Your task to perform on an android device: toggle show notifications on the lock screen Image 0: 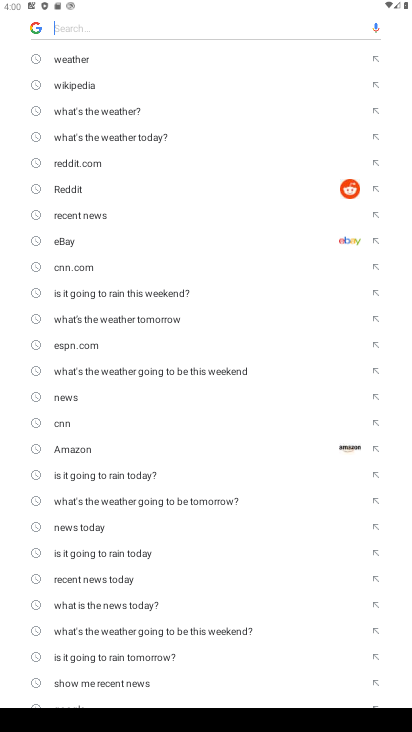
Step 0: press home button
Your task to perform on an android device: toggle show notifications on the lock screen Image 1: 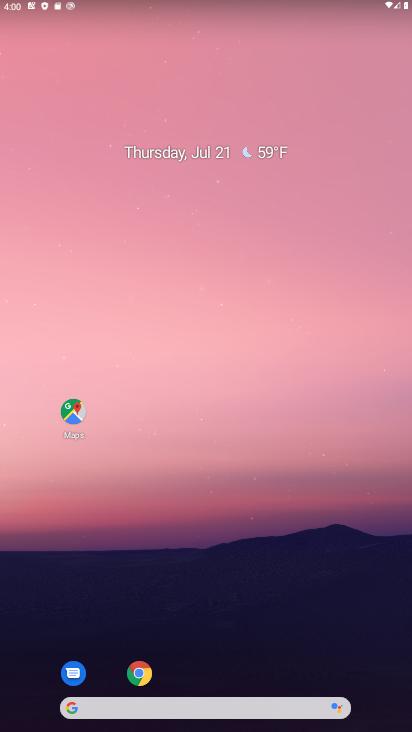
Step 1: drag from (392, 675) to (349, 134)
Your task to perform on an android device: toggle show notifications on the lock screen Image 2: 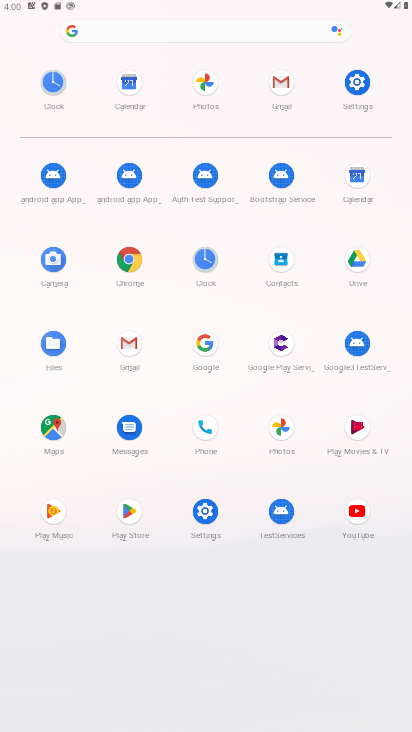
Step 2: click (205, 511)
Your task to perform on an android device: toggle show notifications on the lock screen Image 3: 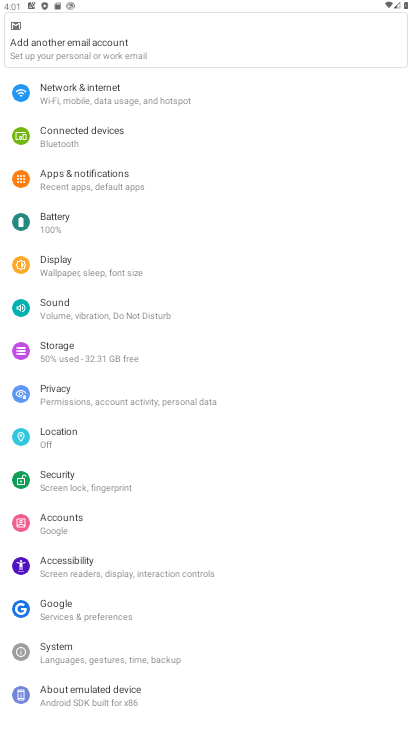
Step 3: click (79, 177)
Your task to perform on an android device: toggle show notifications on the lock screen Image 4: 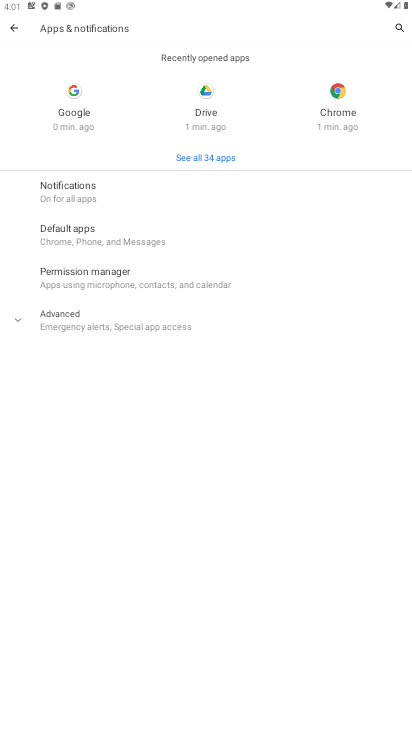
Step 4: click (84, 190)
Your task to perform on an android device: toggle show notifications on the lock screen Image 5: 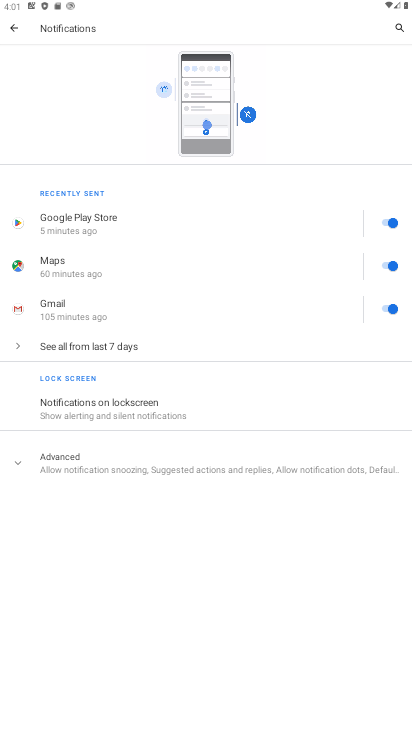
Step 5: click (17, 462)
Your task to perform on an android device: toggle show notifications on the lock screen Image 6: 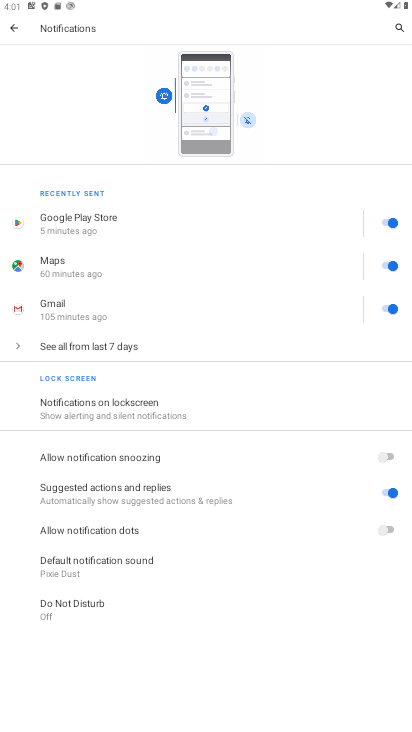
Step 6: click (112, 403)
Your task to perform on an android device: toggle show notifications on the lock screen Image 7: 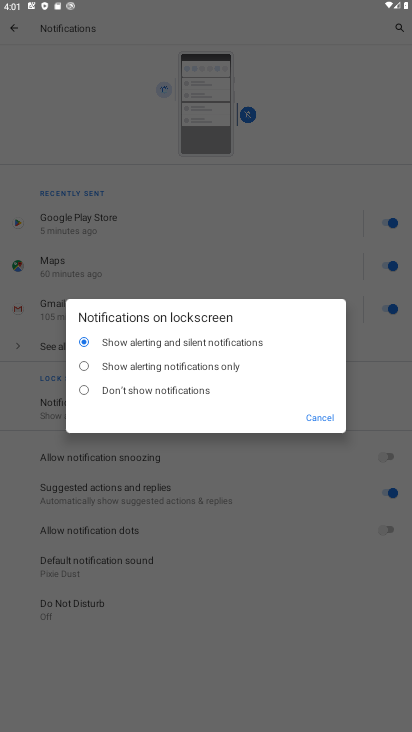
Step 7: click (83, 363)
Your task to perform on an android device: toggle show notifications on the lock screen Image 8: 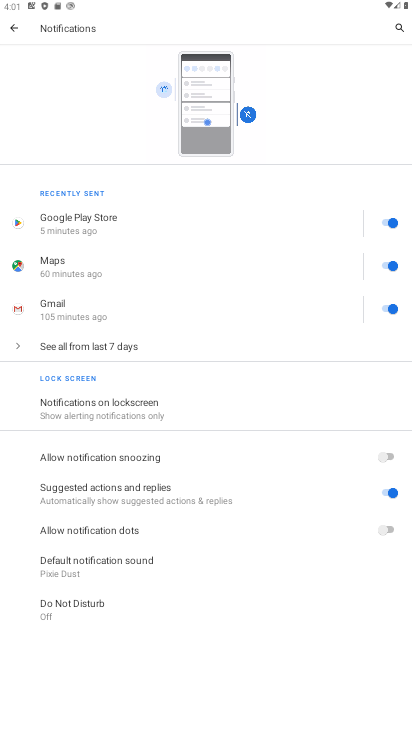
Step 8: task complete